Your task to perform on an android device: Open Google Maps and go to "Timeline" Image 0: 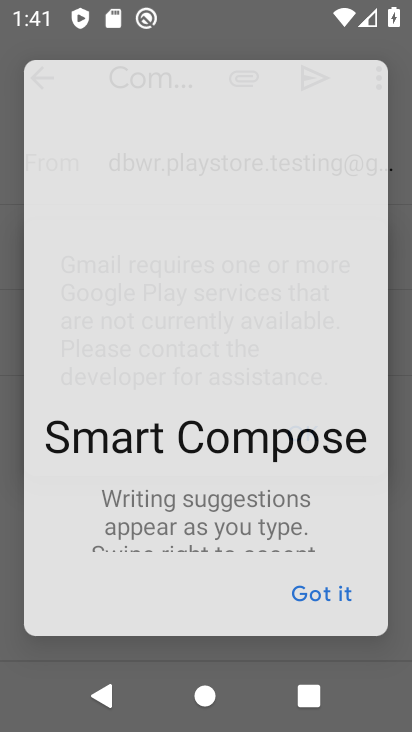
Step 0: press home button
Your task to perform on an android device: Open Google Maps and go to "Timeline" Image 1: 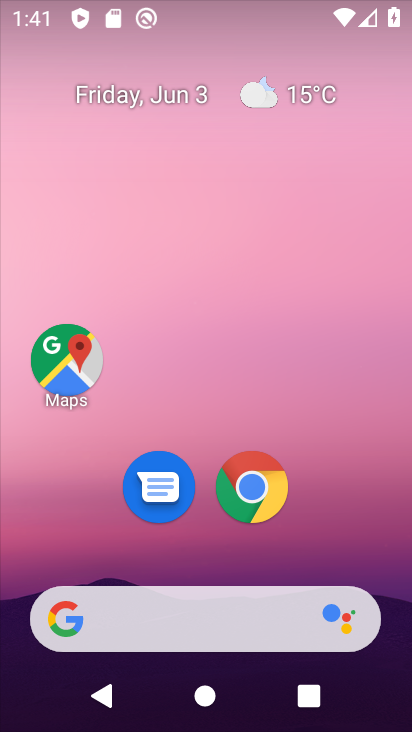
Step 1: click (72, 362)
Your task to perform on an android device: Open Google Maps and go to "Timeline" Image 2: 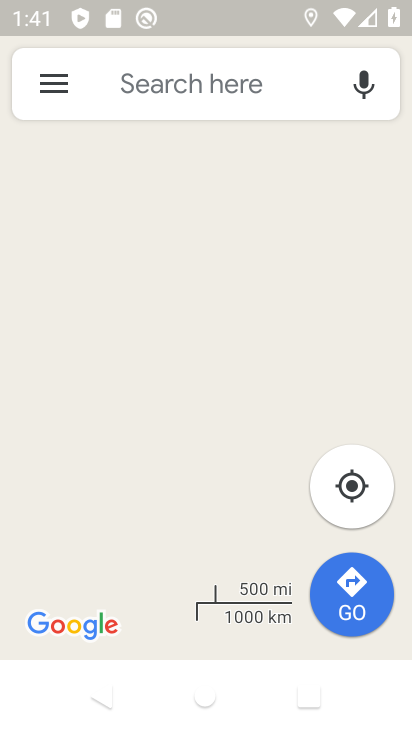
Step 2: click (54, 83)
Your task to perform on an android device: Open Google Maps and go to "Timeline" Image 3: 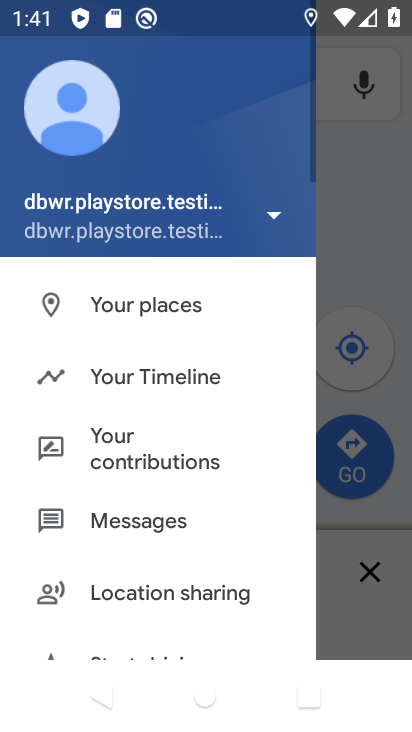
Step 3: click (160, 380)
Your task to perform on an android device: Open Google Maps and go to "Timeline" Image 4: 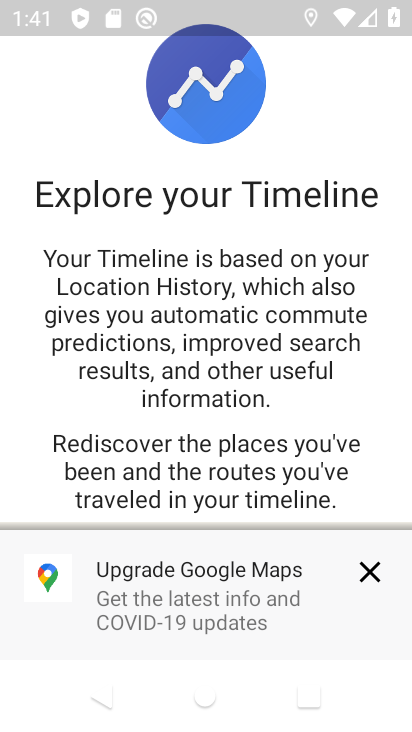
Step 4: click (366, 574)
Your task to perform on an android device: Open Google Maps and go to "Timeline" Image 5: 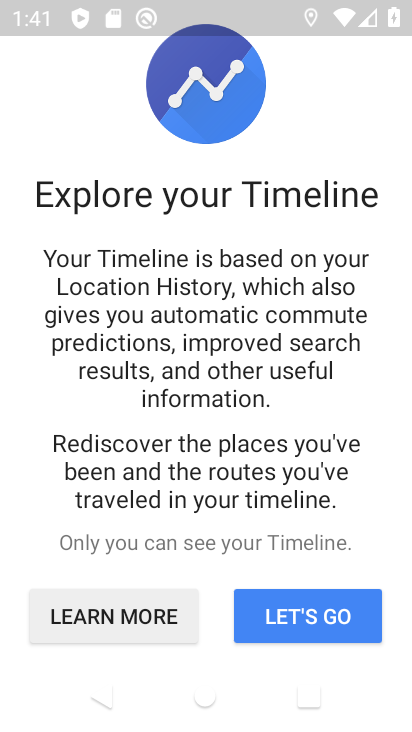
Step 5: click (295, 603)
Your task to perform on an android device: Open Google Maps and go to "Timeline" Image 6: 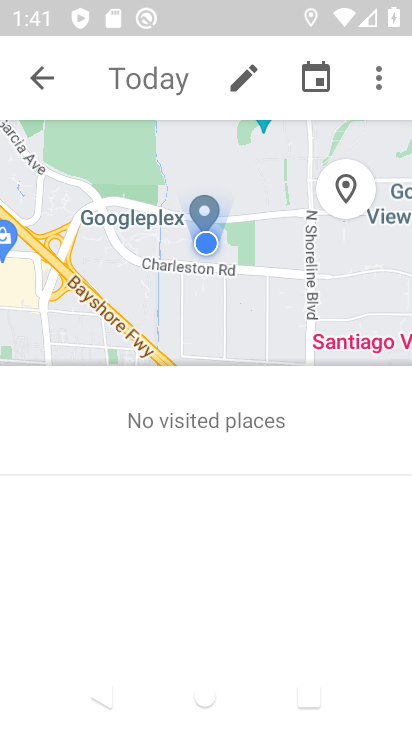
Step 6: task complete